Your task to perform on an android device: Turn on the flashlight Image 0: 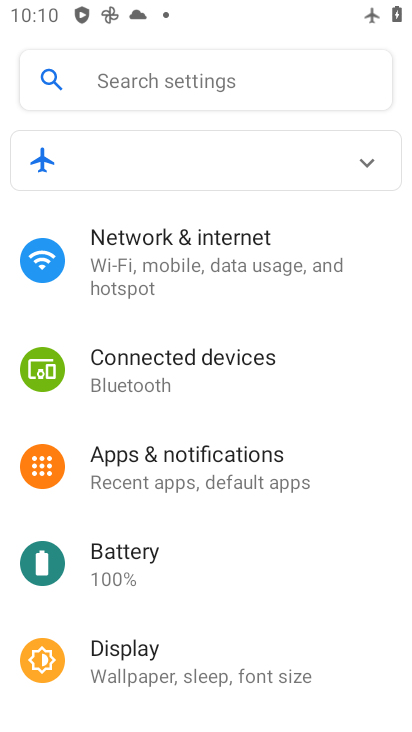
Step 0: press home button
Your task to perform on an android device: Turn on the flashlight Image 1: 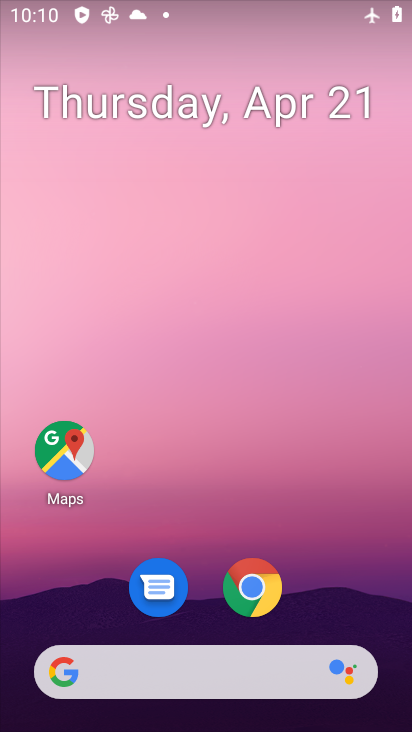
Step 1: drag from (239, 1) to (226, 338)
Your task to perform on an android device: Turn on the flashlight Image 2: 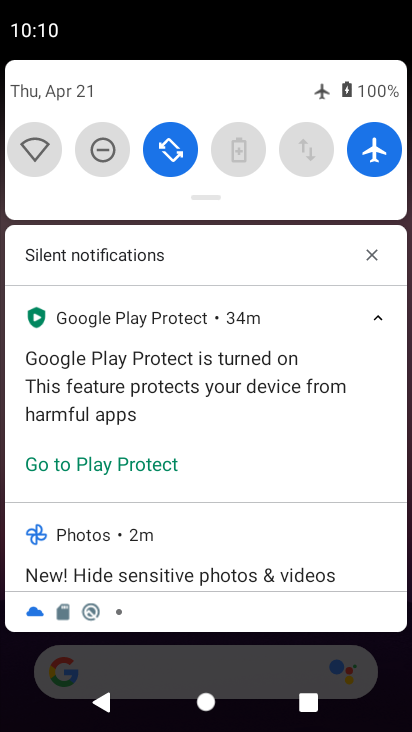
Step 2: drag from (200, 149) to (202, 376)
Your task to perform on an android device: Turn on the flashlight Image 3: 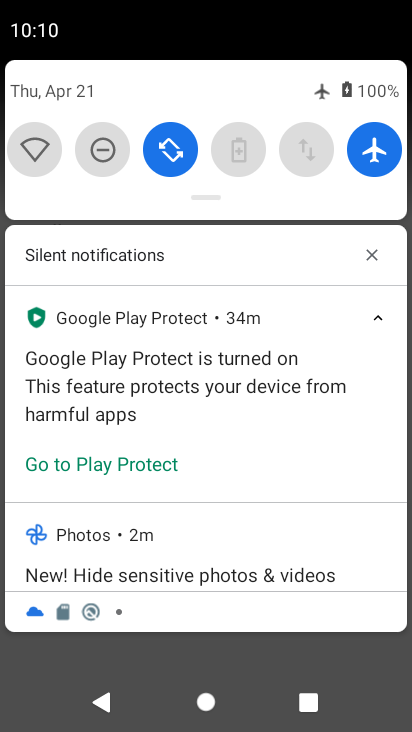
Step 3: drag from (214, 91) to (199, 381)
Your task to perform on an android device: Turn on the flashlight Image 4: 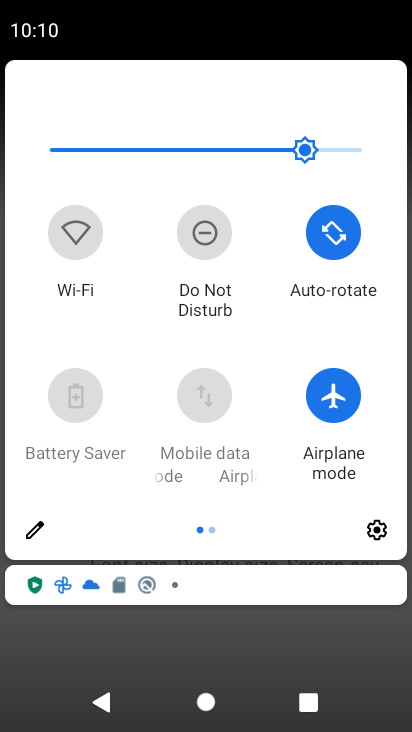
Step 4: click (32, 528)
Your task to perform on an android device: Turn on the flashlight Image 5: 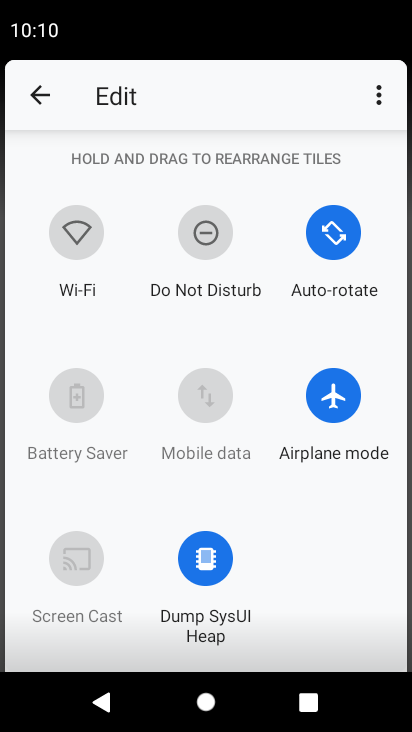
Step 5: task complete